Your task to perform on an android device: Turn on the flashlight Image 0: 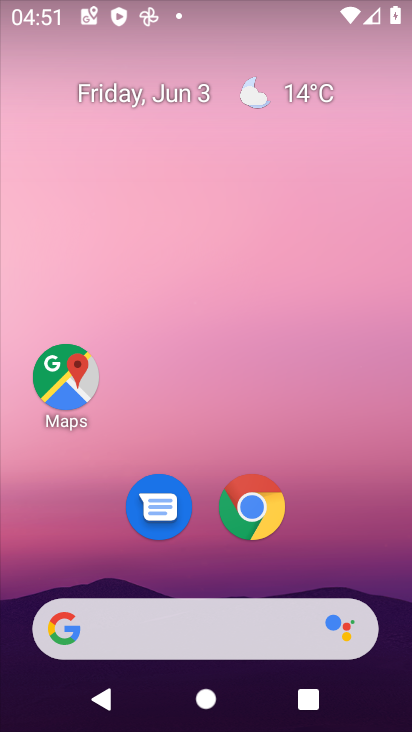
Step 0: drag from (234, 53) to (286, 620)
Your task to perform on an android device: Turn on the flashlight Image 1: 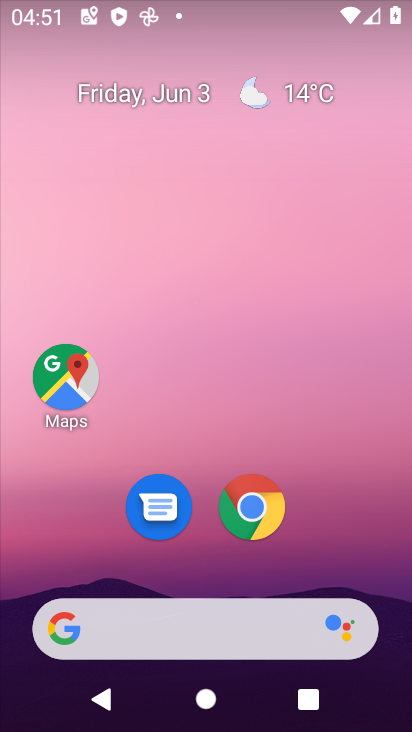
Step 1: task complete